Your task to perform on an android device: turn on the 12-hour format for clock Image 0: 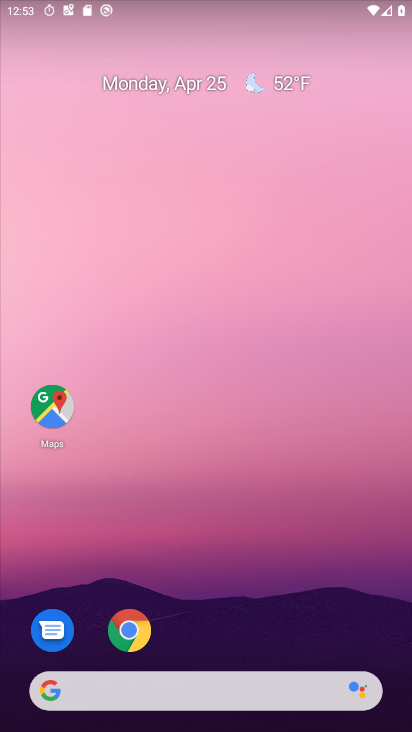
Step 0: drag from (373, 626) to (172, 52)
Your task to perform on an android device: turn on the 12-hour format for clock Image 1: 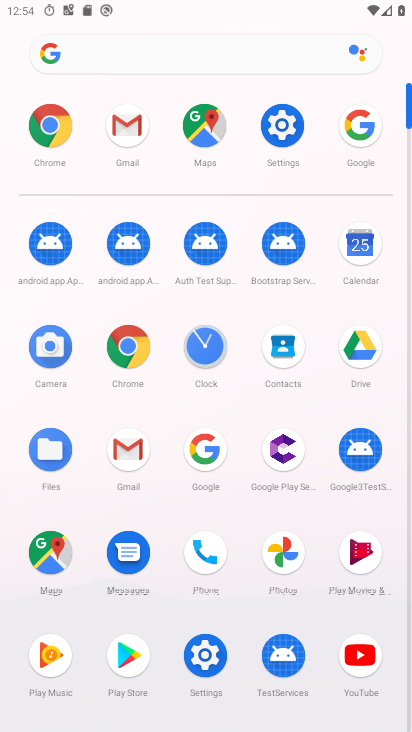
Step 1: click (200, 365)
Your task to perform on an android device: turn on the 12-hour format for clock Image 2: 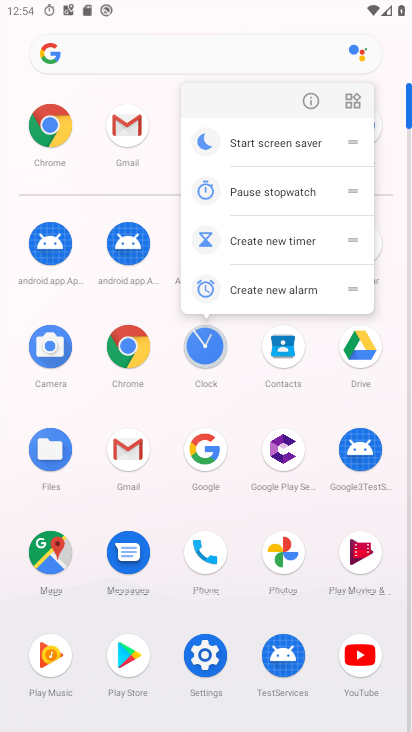
Step 2: click (302, 101)
Your task to perform on an android device: turn on the 12-hour format for clock Image 3: 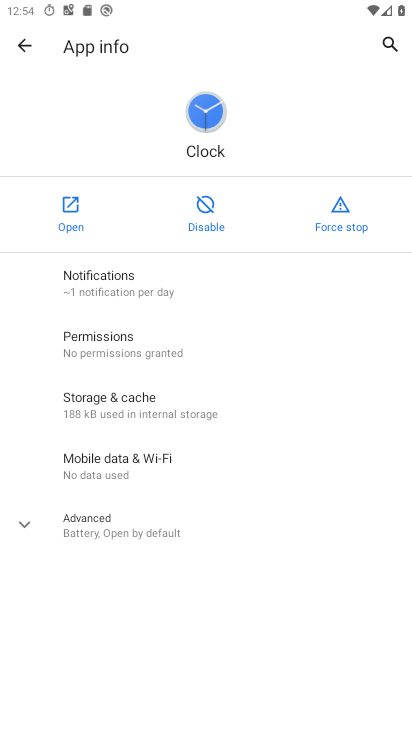
Step 3: click (65, 209)
Your task to perform on an android device: turn on the 12-hour format for clock Image 4: 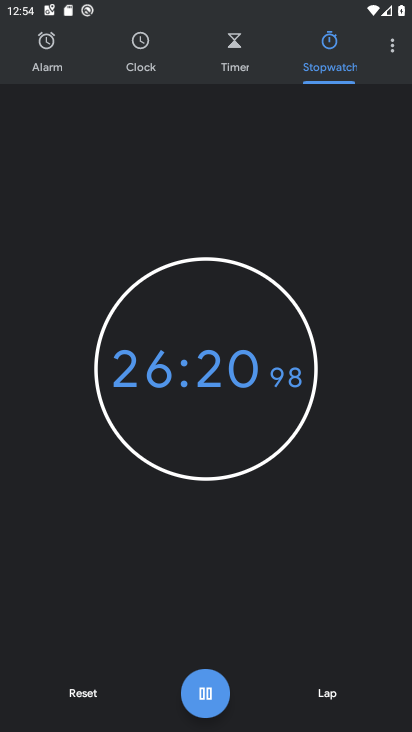
Step 4: click (394, 62)
Your task to perform on an android device: turn on the 12-hour format for clock Image 5: 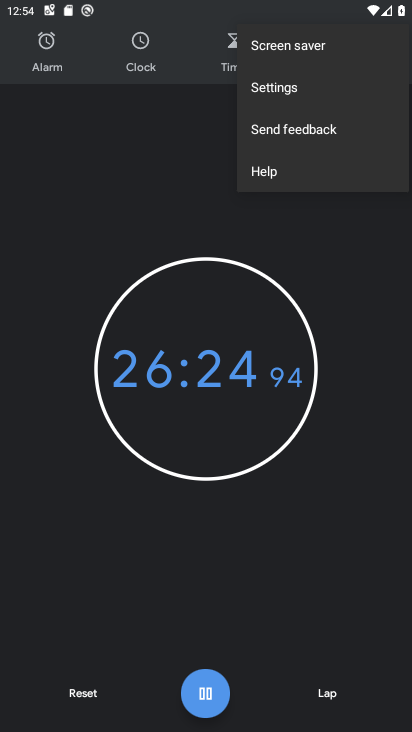
Step 5: click (268, 88)
Your task to perform on an android device: turn on the 12-hour format for clock Image 6: 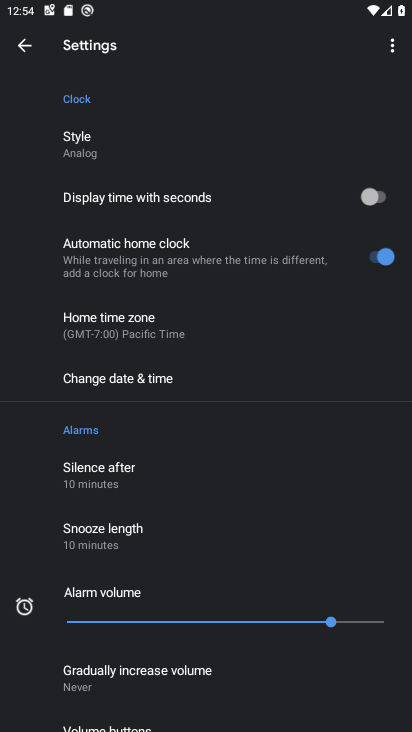
Step 6: click (197, 372)
Your task to perform on an android device: turn on the 12-hour format for clock Image 7: 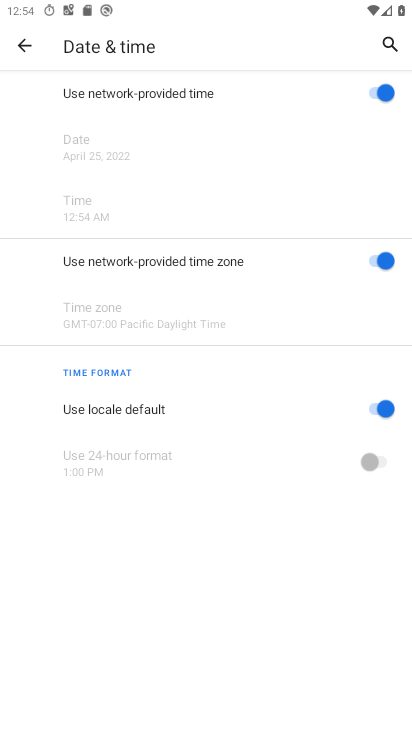
Step 7: task complete